Your task to perform on an android device: Add "usb-a to usb-b" to the cart on bestbuy Image 0: 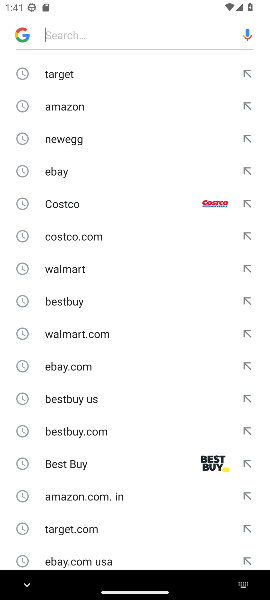
Step 0: click (70, 303)
Your task to perform on an android device: Add "usb-a to usb-b" to the cart on bestbuy Image 1: 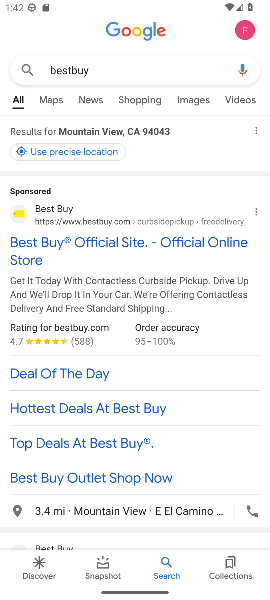
Step 1: click (114, 241)
Your task to perform on an android device: Add "usb-a to usb-b" to the cart on bestbuy Image 2: 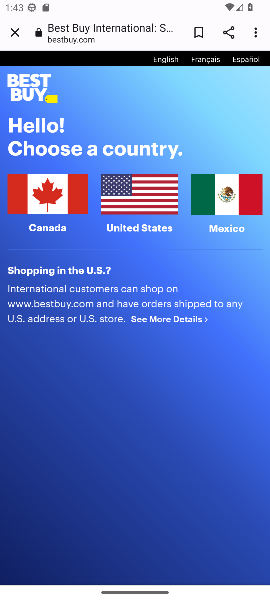
Step 2: click (139, 204)
Your task to perform on an android device: Add "usb-a to usb-b" to the cart on bestbuy Image 3: 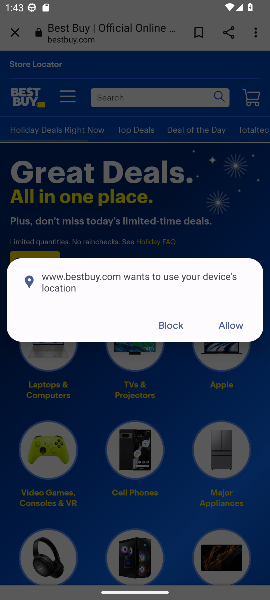
Step 3: click (168, 323)
Your task to perform on an android device: Add "usb-a to usb-b" to the cart on bestbuy Image 4: 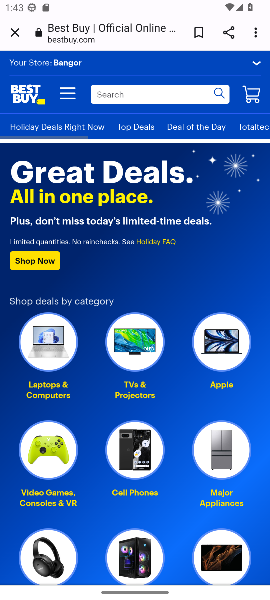
Step 4: click (125, 95)
Your task to perform on an android device: Add "usb-a to usb-b" to the cart on bestbuy Image 5: 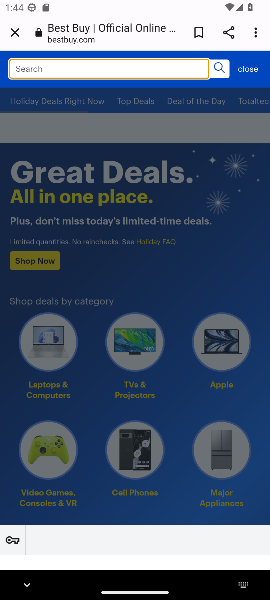
Step 5: type "usb-a to usb-b"
Your task to perform on an android device: Add "usb-a to usb-b" to the cart on bestbuy Image 6: 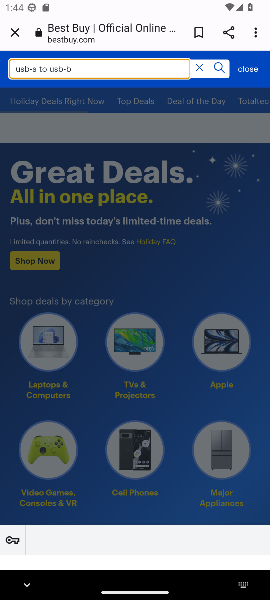
Step 6: click (220, 68)
Your task to perform on an android device: Add "usb-a to usb-b" to the cart on bestbuy Image 7: 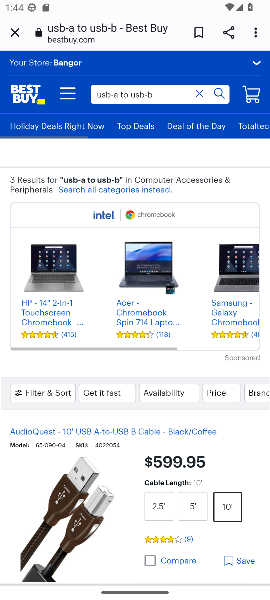
Step 7: click (212, 466)
Your task to perform on an android device: Add "usb-a to usb-b" to the cart on bestbuy Image 8: 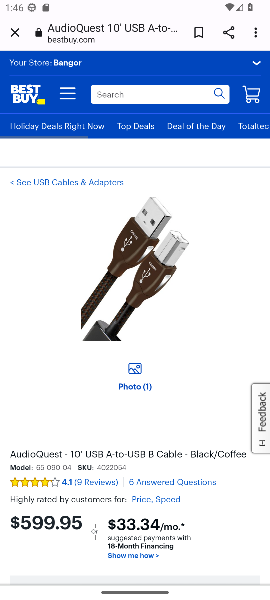
Step 8: drag from (164, 510) to (153, 33)
Your task to perform on an android device: Add "usb-a to usb-b" to the cart on bestbuy Image 9: 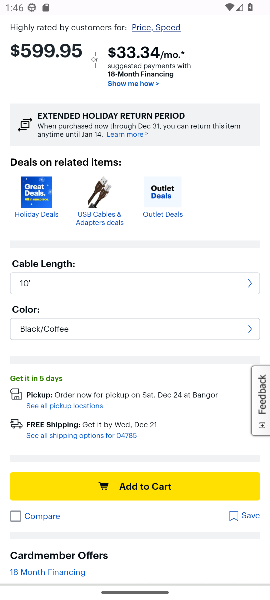
Step 9: click (154, 490)
Your task to perform on an android device: Add "usb-a to usb-b" to the cart on bestbuy Image 10: 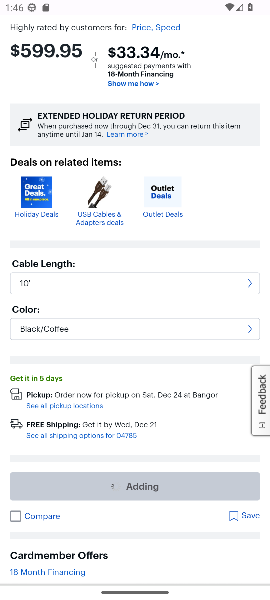
Step 10: task complete